Your task to perform on an android device: turn off location Image 0: 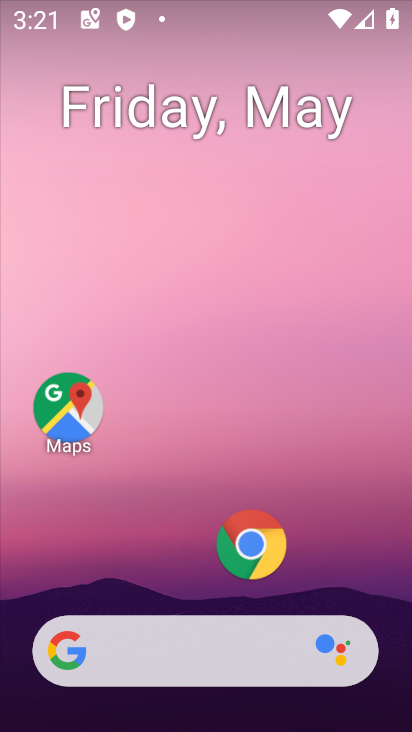
Step 0: drag from (204, 592) to (273, 224)
Your task to perform on an android device: turn off location Image 1: 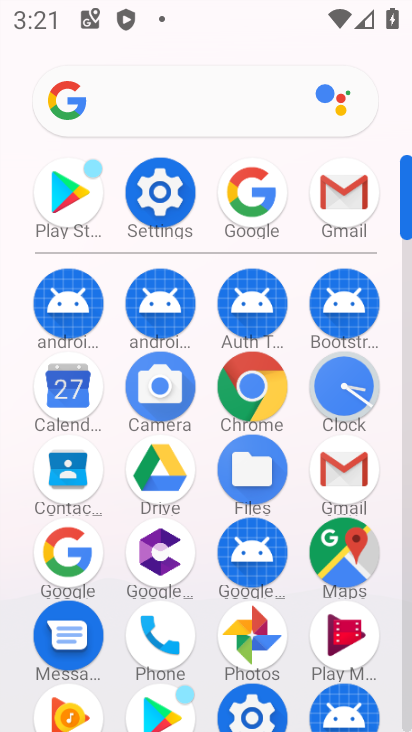
Step 1: click (198, 191)
Your task to perform on an android device: turn off location Image 2: 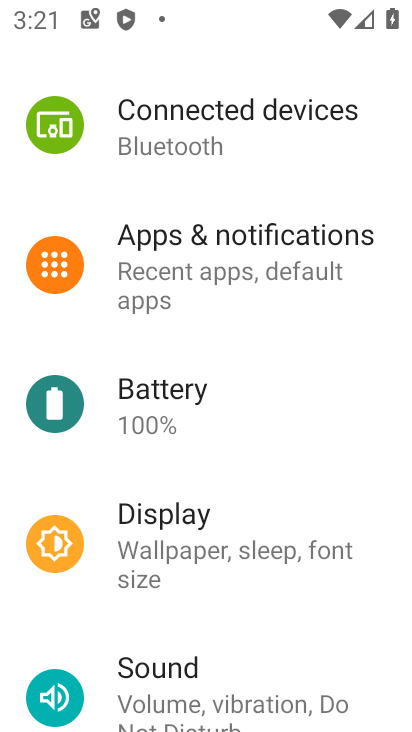
Step 2: drag from (256, 172) to (273, 565)
Your task to perform on an android device: turn off location Image 3: 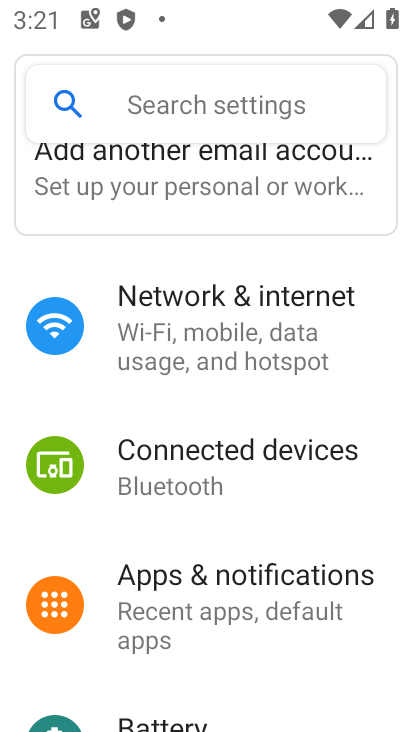
Step 3: click (291, 328)
Your task to perform on an android device: turn off location Image 4: 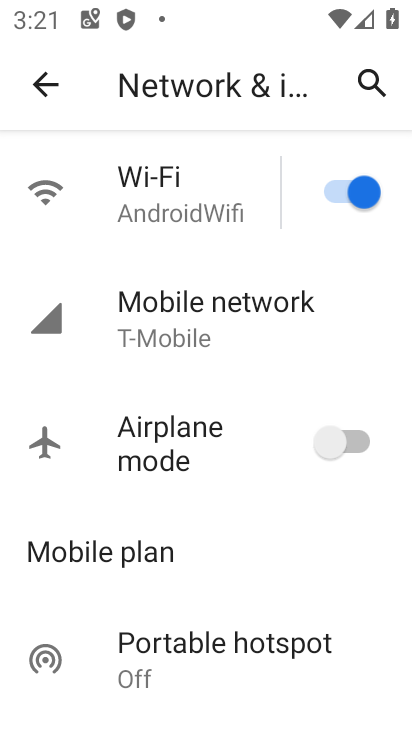
Step 4: drag from (259, 641) to (304, 153)
Your task to perform on an android device: turn off location Image 5: 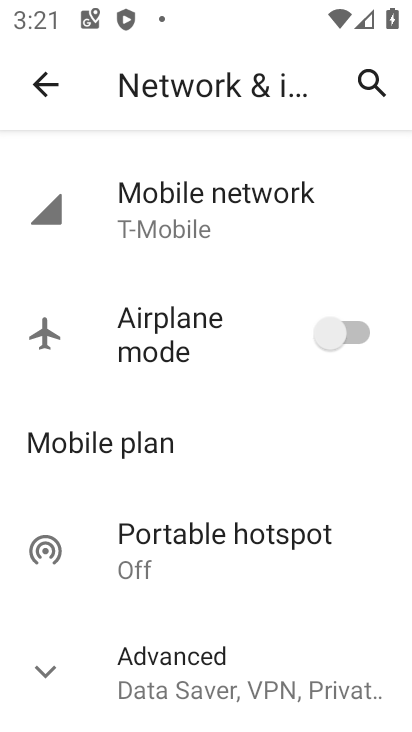
Step 5: drag from (314, 643) to (280, 298)
Your task to perform on an android device: turn off location Image 6: 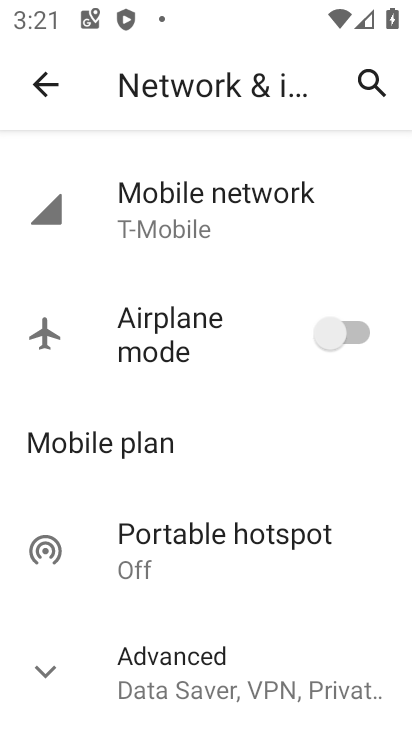
Step 6: drag from (213, 518) to (243, 212)
Your task to perform on an android device: turn off location Image 7: 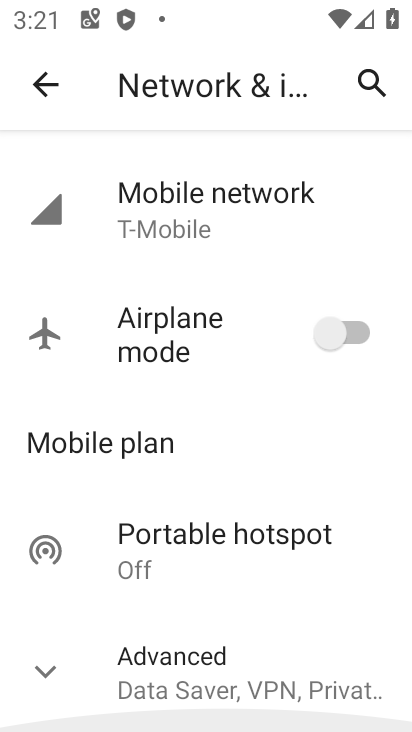
Step 7: drag from (243, 542) to (253, 225)
Your task to perform on an android device: turn off location Image 8: 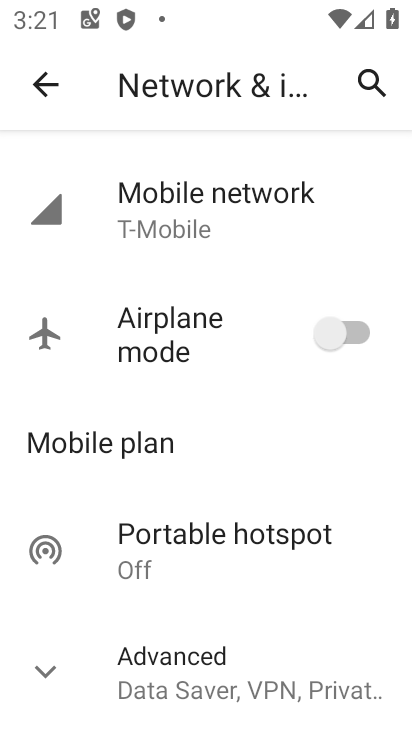
Step 8: click (57, 88)
Your task to perform on an android device: turn off location Image 9: 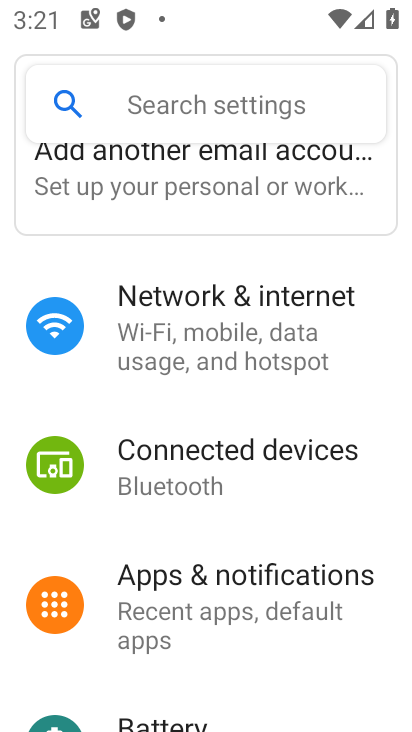
Step 9: drag from (230, 616) to (227, 240)
Your task to perform on an android device: turn off location Image 10: 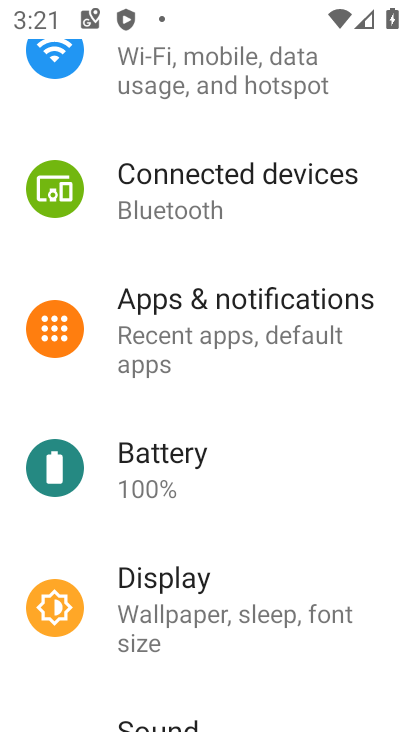
Step 10: drag from (230, 598) to (278, 193)
Your task to perform on an android device: turn off location Image 11: 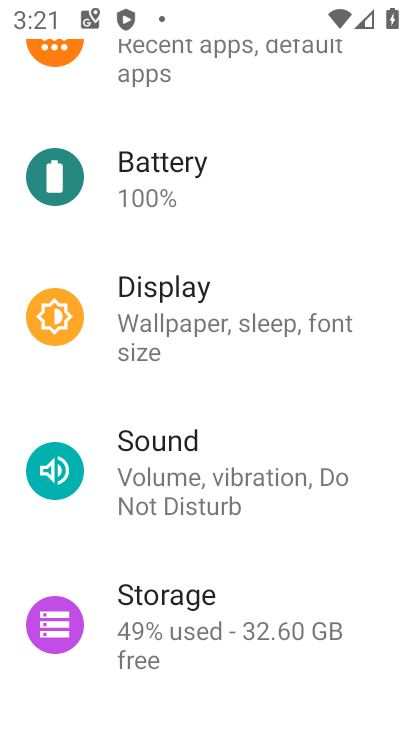
Step 11: drag from (272, 591) to (319, 247)
Your task to perform on an android device: turn off location Image 12: 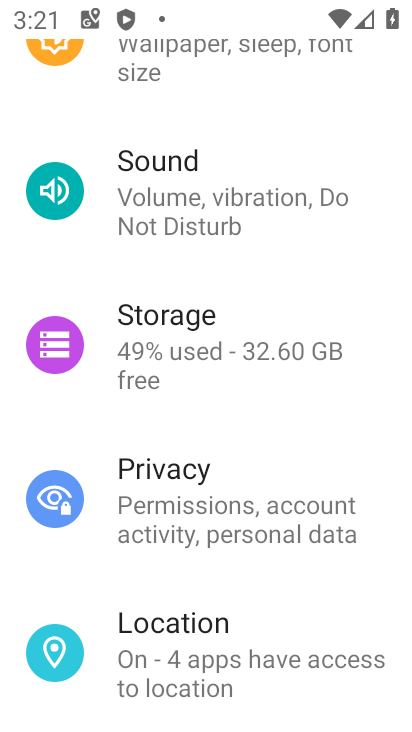
Step 12: click (179, 673)
Your task to perform on an android device: turn off location Image 13: 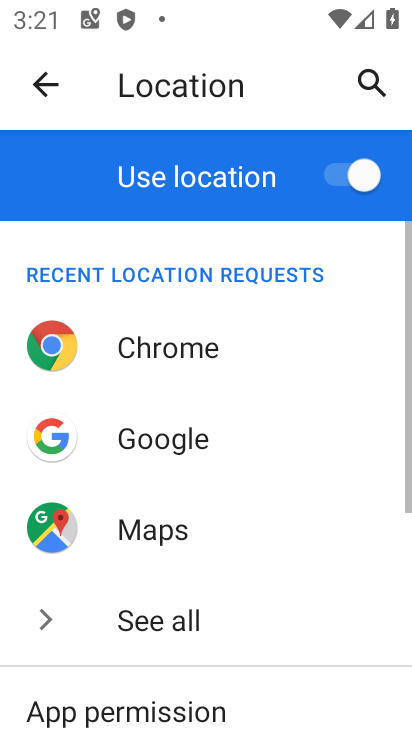
Step 13: click (333, 184)
Your task to perform on an android device: turn off location Image 14: 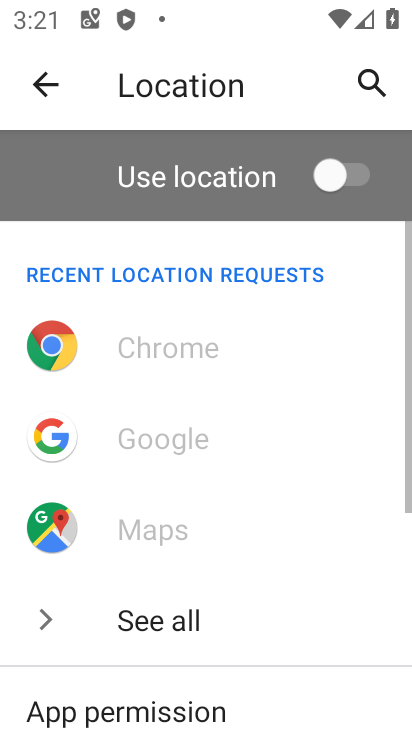
Step 14: task complete